Your task to perform on an android device: open wifi settings Image 0: 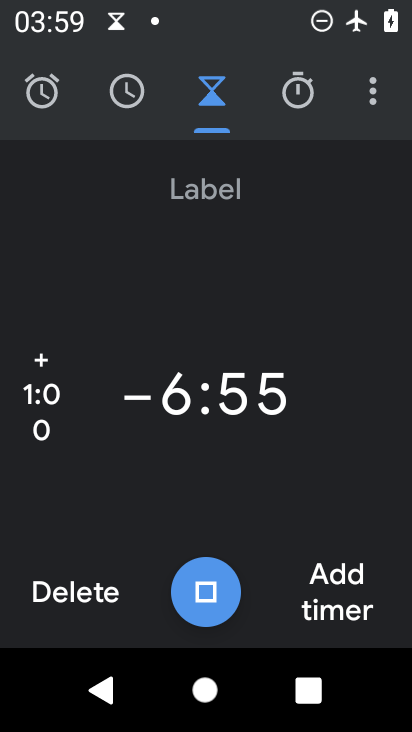
Step 0: press home button
Your task to perform on an android device: open wifi settings Image 1: 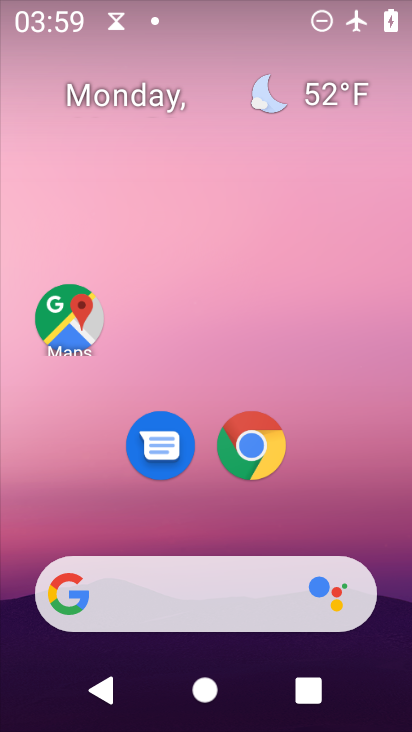
Step 1: drag from (208, 518) to (231, 15)
Your task to perform on an android device: open wifi settings Image 2: 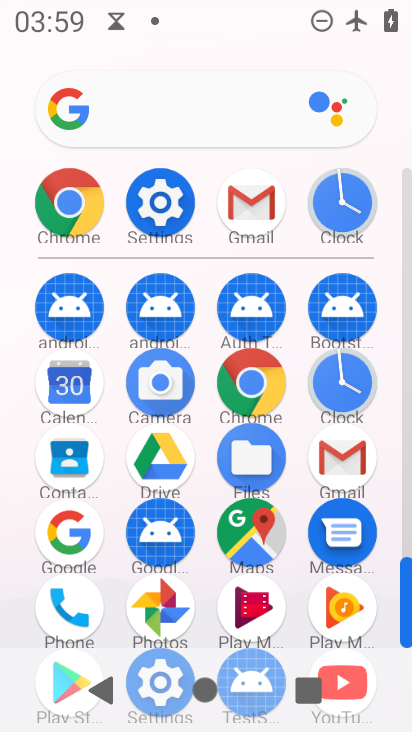
Step 2: click (163, 211)
Your task to perform on an android device: open wifi settings Image 3: 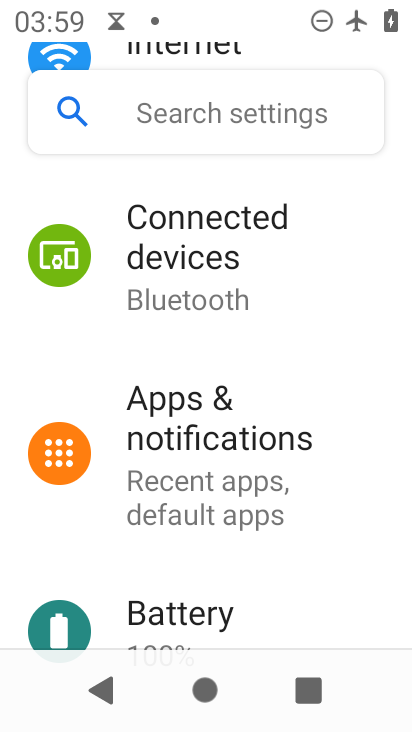
Step 3: drag from (257, 258) to (157, 726)
Your task to perform on an android device: open wifi settings Image 4: 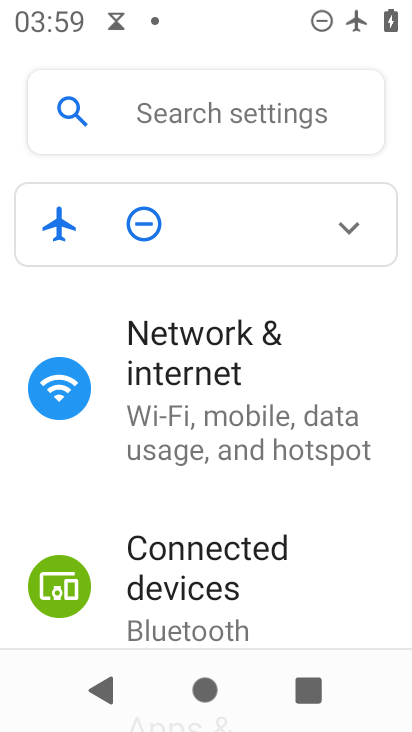
Step 4: click (211, 425)
Your task to perform on an android device: open wifi settings Image 5: 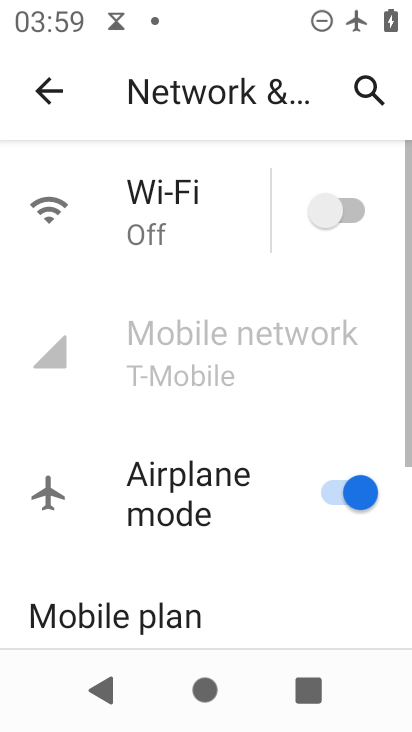
Step 5: click (209, 202)
Your task to perform on an android device: open wifi settings Image 6: 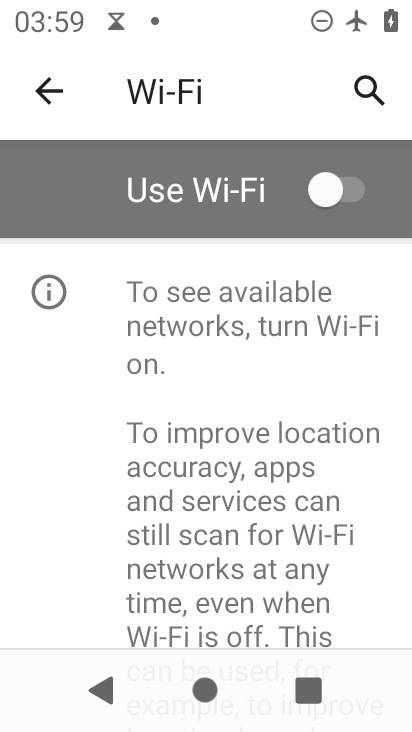
Step 6: task complete